Your task to perform on an android device: What's on my calendar today? Image 0: 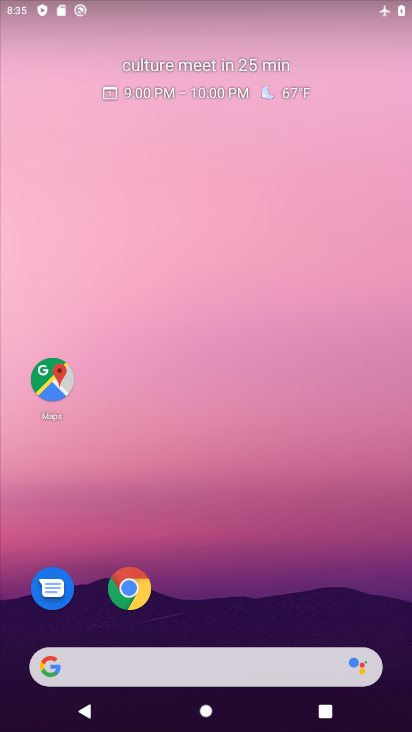
Step 0: drag from (281, 554) to (332, 102)
Your task to perform on an android device: What's on my calendar today? Image 1: 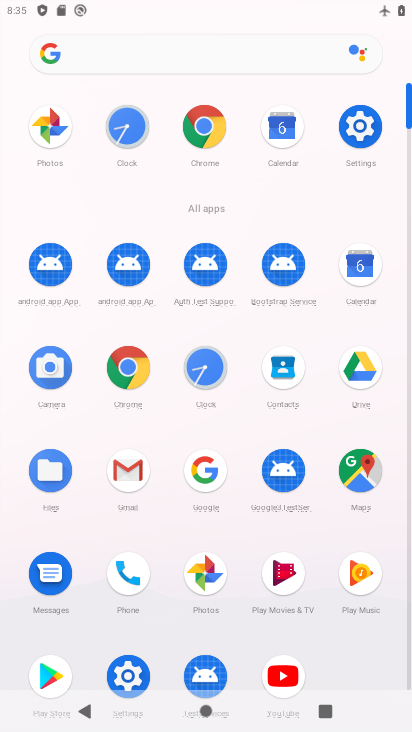
Step 1: click (357, 276)
Your task to perform on an android device: What's on my calendar today? Image 2: 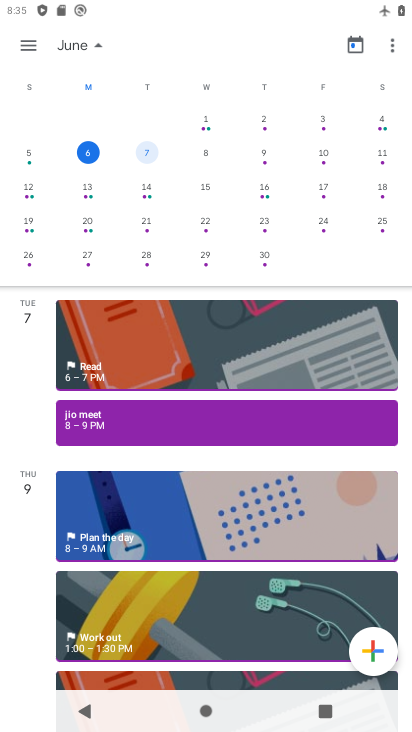
Step 2: task complete